Your task to perform on an android device: change your default location settings in chrome Image 0: 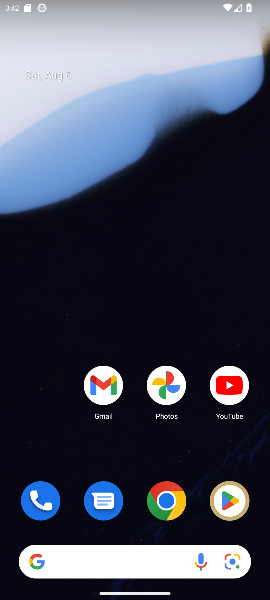
Step 0: click (163, 505)
Your task to perform on an android device: change your default location settings in chrome Image 1: 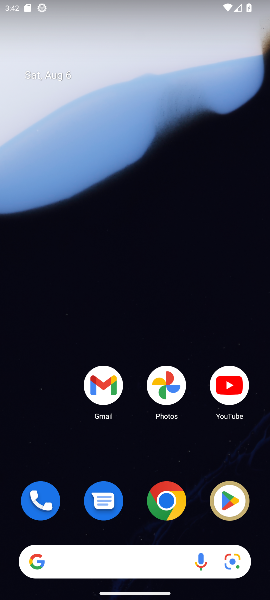
Step 1: click (163, 505)
Your task to perform on an android device: change your default location settings in chrome Image 2: 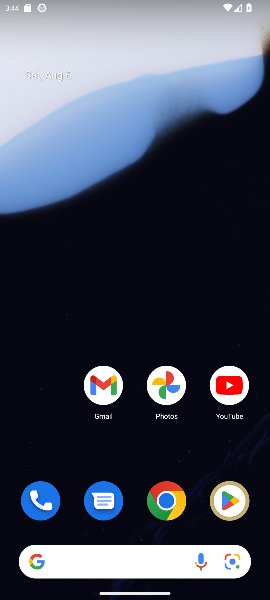
Step 2: click (184, 494)
Your task to perform on an android device: change your default location settings in chrome Image 3: 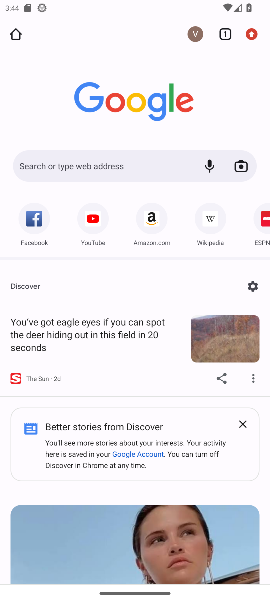
Step 3: click (253, 38)
Your task to perform on an android device: change your default location settings in chrome Image 4: 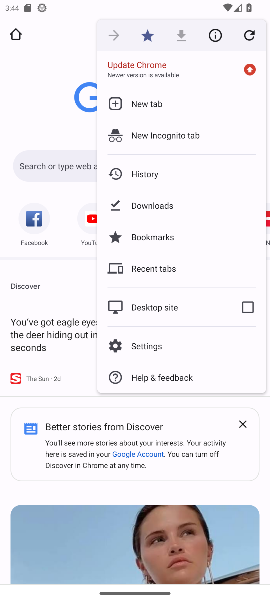
Step 4: click (168, 355)
Your task to perform on an android device: change your default location settings in chrome Image 5: 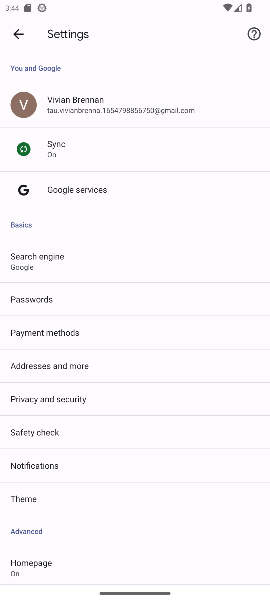
Step 5: drag from (86, 512) to (265, 405)
Your task to perform on an android device: change your default location settings in chrome Image 6: 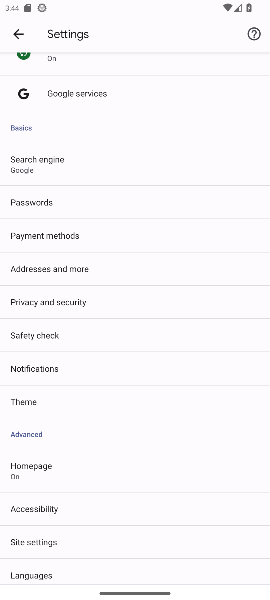
Step 6: click (69, 541)
Your task to perform on an android device: change your default location settings in chrome Image 7: 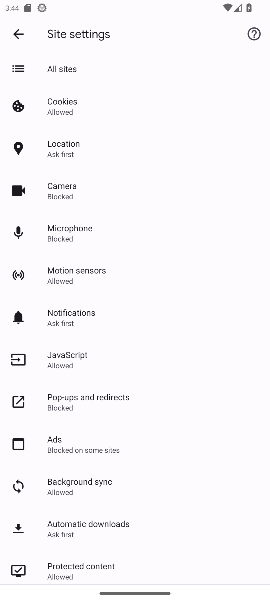
Step 7: click (97, 149)
Your task to perform on an android device: change your default location settings in chrome Image 8: 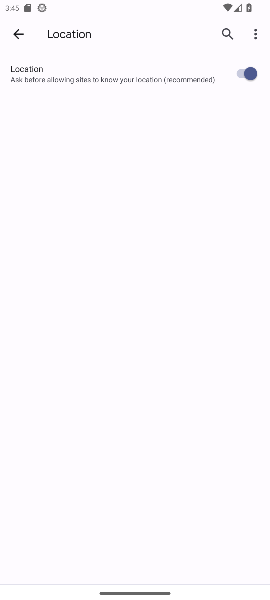
Step 8: click (246, 76)
Your task to perform on an android device: change your default location settings in chrome Image 9: 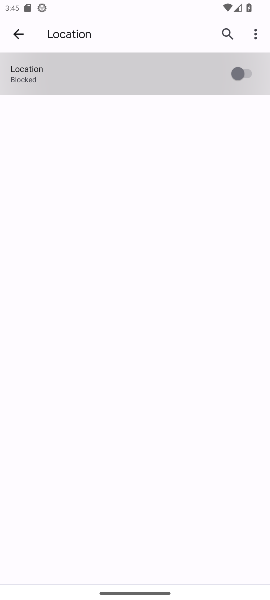
Step 9: task complete